Your task to perform on an android device: Empty the shopping cart on bestbuy. Add "panasonic triple a" to the cart on bestbuy Image 0: 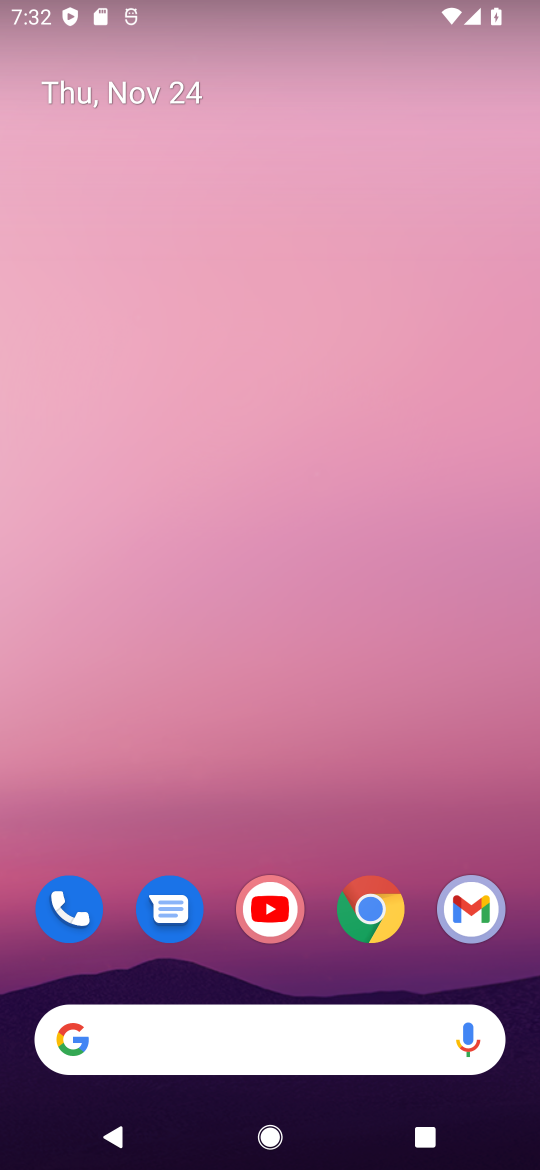
Step 0: click (380, 907)
Your task to perform on an android device: Empty the shopping cart on bestbuy. Add "panasonic triple a" to the cart on bestbuy Image 1: 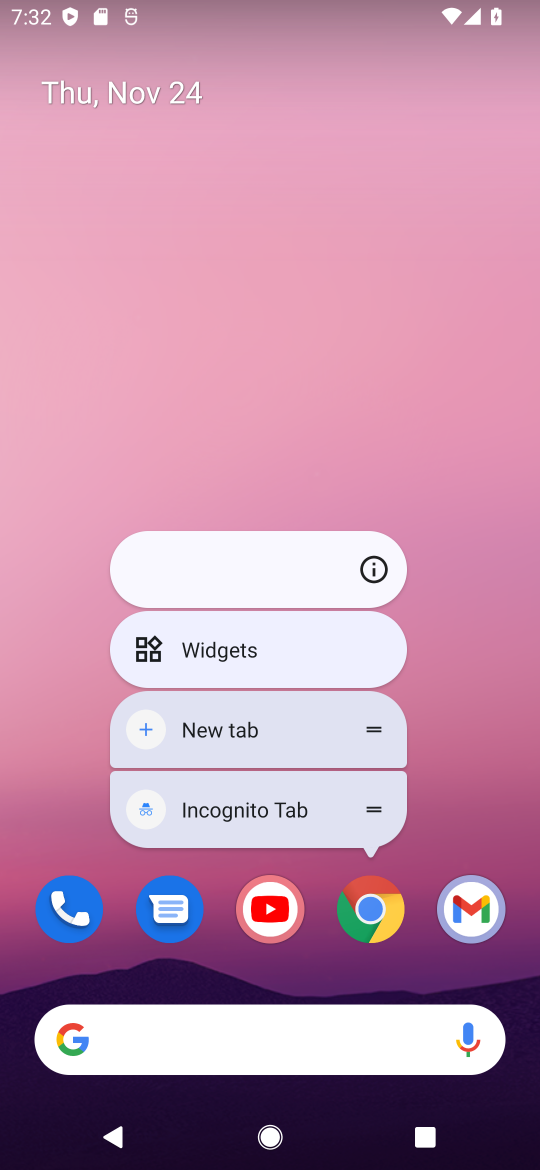
Step 1: click (380, 907)
Your task to perform on an android device: Empty the shopping cart on bestbuy. Add "panasonic triple a" to the cart on bestbuy Image 2: 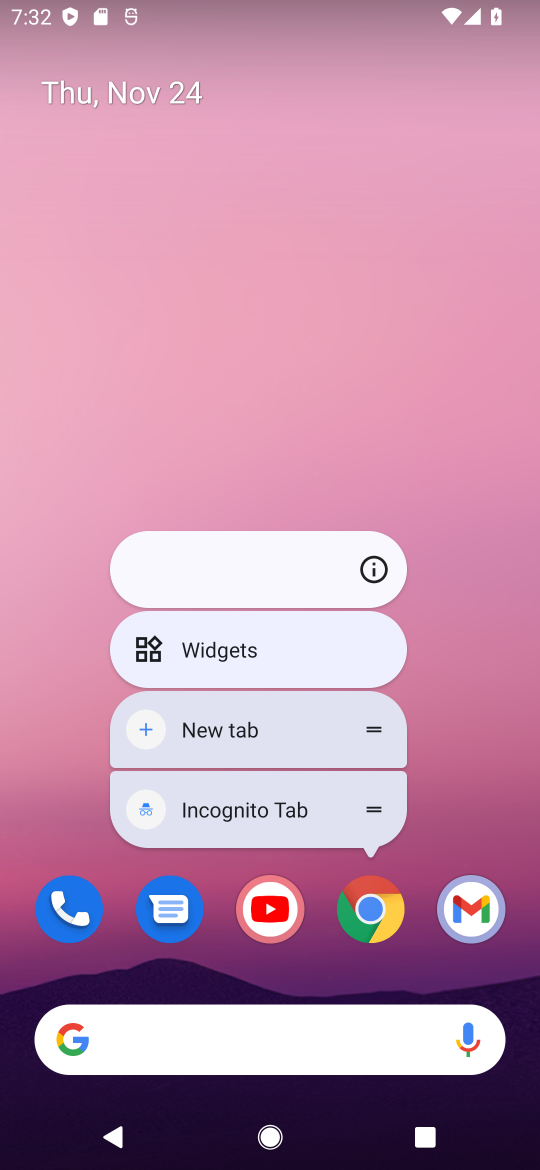
Step 2: click (380, 907)
Your task to perform on an android device: Empty the shopping cart on bestbuy. Add "panasonic triple a" to the cart on bestbuy Image 3: 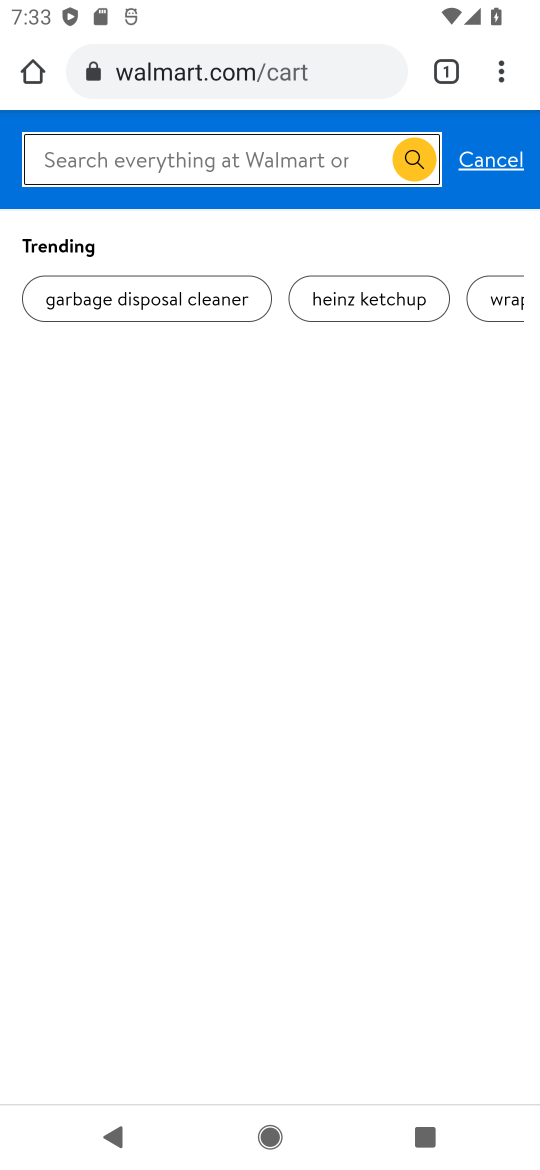
Step 3: click (268, 78)
Your task to perform on an android device: Empty the shopping cart on bestbuy. Add "panasonic triple a" to the cart on bestbuy Image 4: 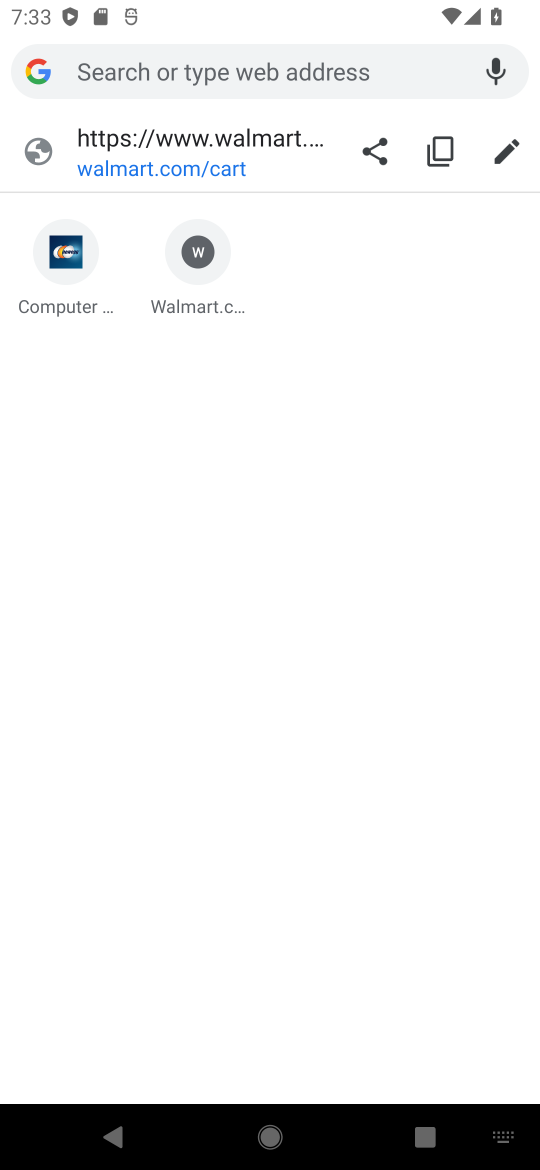
Step 4: type "bestbuy"
Your task to perform on an android device: Empty the shopping cart on bestbuy. Add "panasonic triple a" to the cart on bestbuy Image 5: 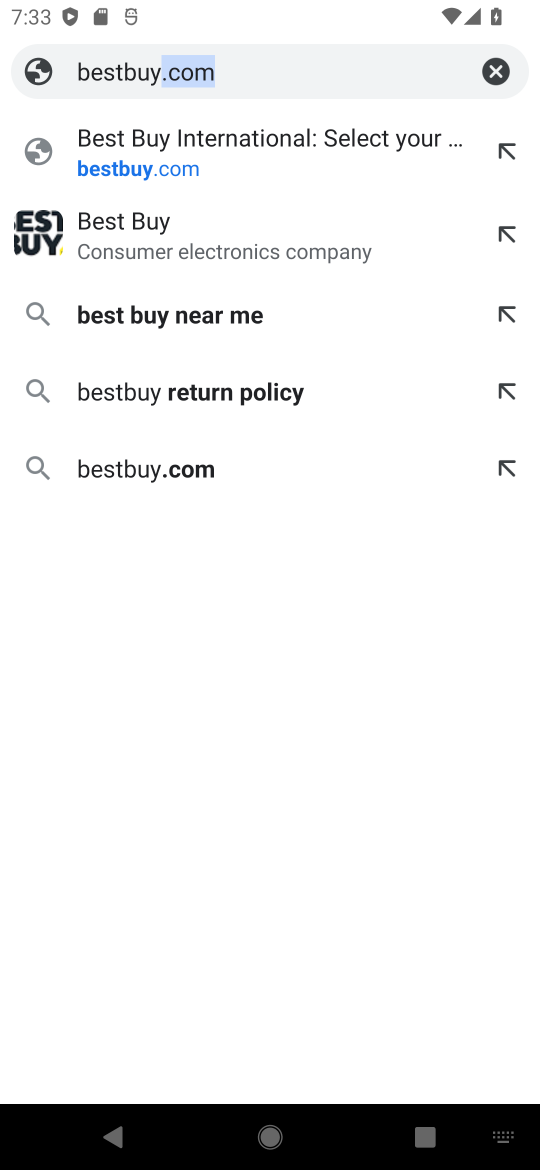
Step 5: click (279, 164)
Your task to perform on an android device: Empty the shopping cart on bestbuy. Add "panasonic triple a" to the cart on bestbuy Image 6: 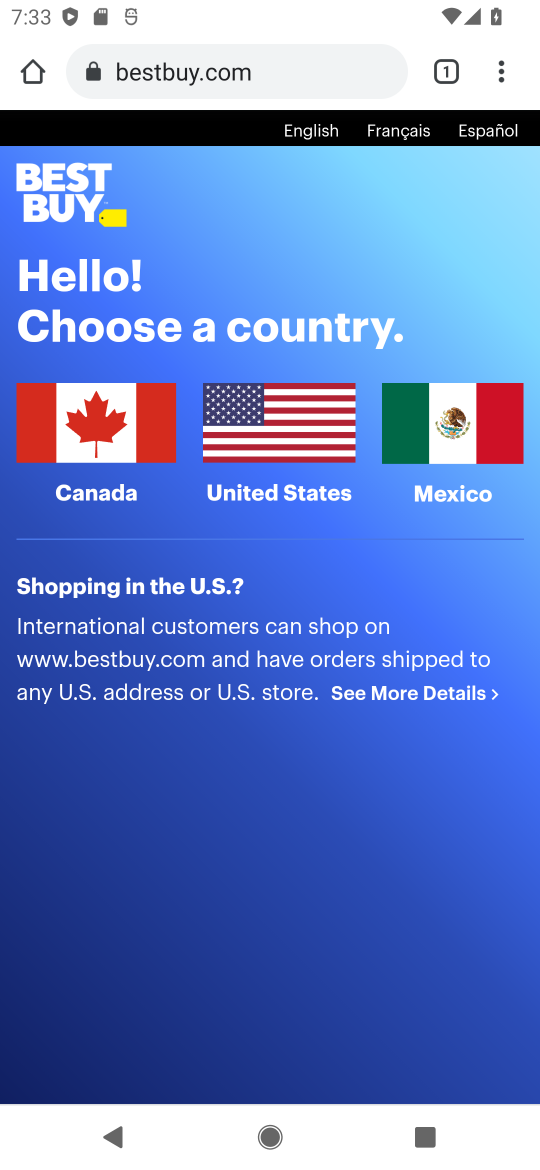
Step 6: click (295, 408)
Your task to perform on an android device: Empty the shopping cart on bestbuy. Add "panasonic triple a" to the cart on bestbuy Image 7: 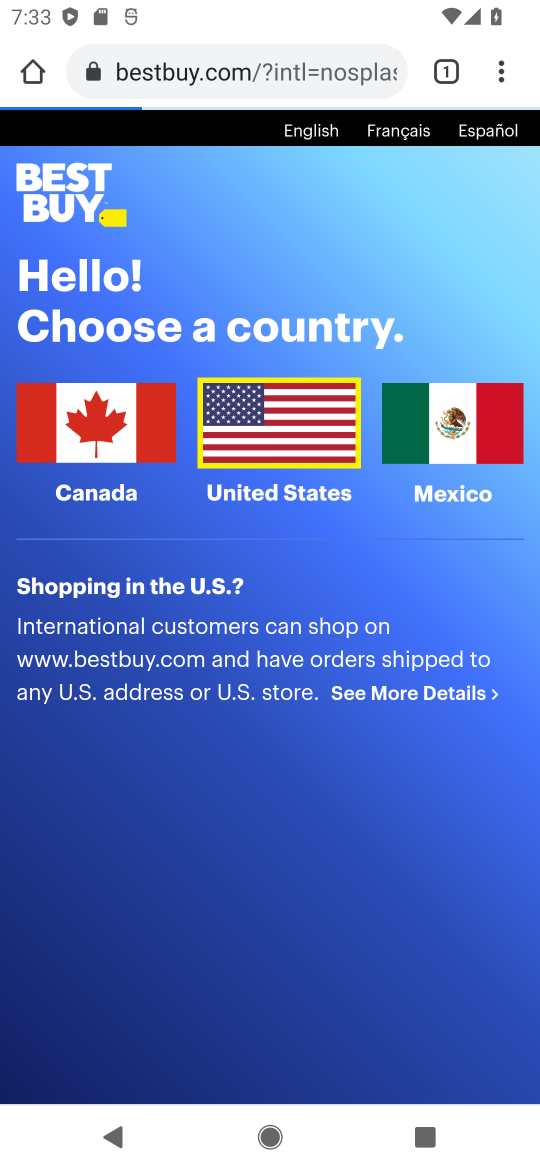
Step 7: click (275, 489)
Your task to perform on an android device: Empty the shopping cart on bestbuy. Add "panasonic triple a" to the cart on bestbuy Image 8: 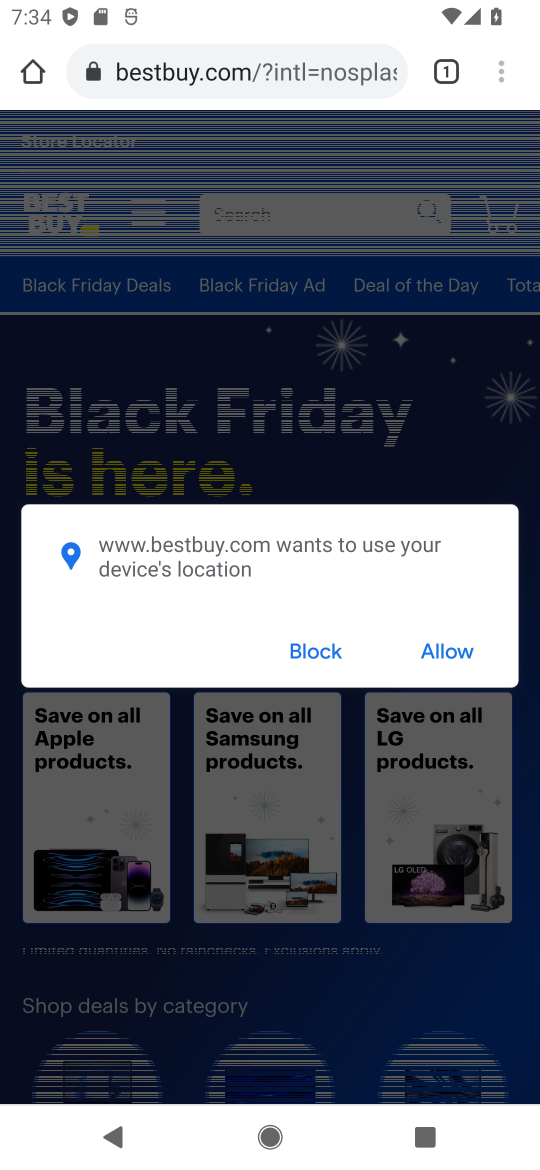
Step 8: click (434, 670)
Your task to perform on an android device: Empty the shopping cart on bestbuy. Add "panasonic triple a" to the cart on bestbuy Image 9: 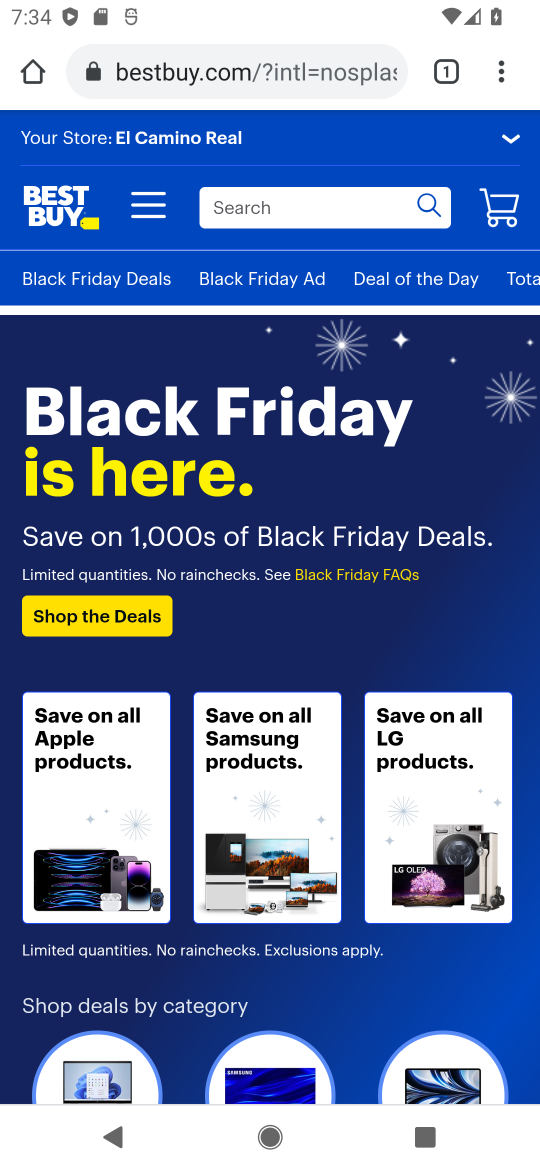
Step 9: click (326, 211)
Your task to perform on an android device: Empty the shopping cart on bestbuy. Add "panasonic triple a" to the cart on bestbuy Image 10: 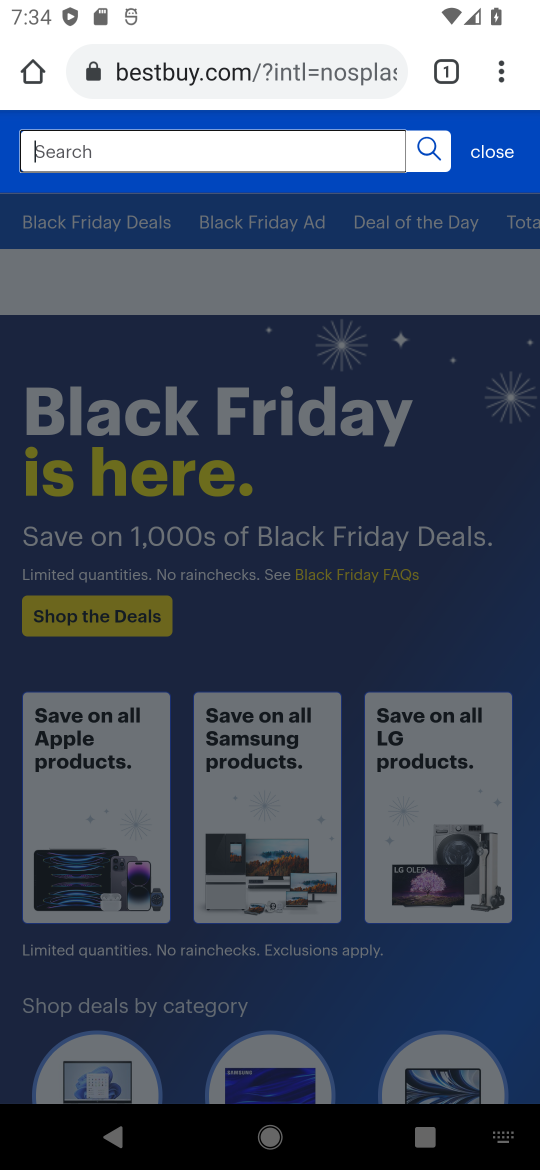
Step 10: type "panasonic aaa"
Your task to perform on an android device: Empty the shopping cart on bestbuy. Add "panasonic triple a" to the cart on bestbuy Image 11: 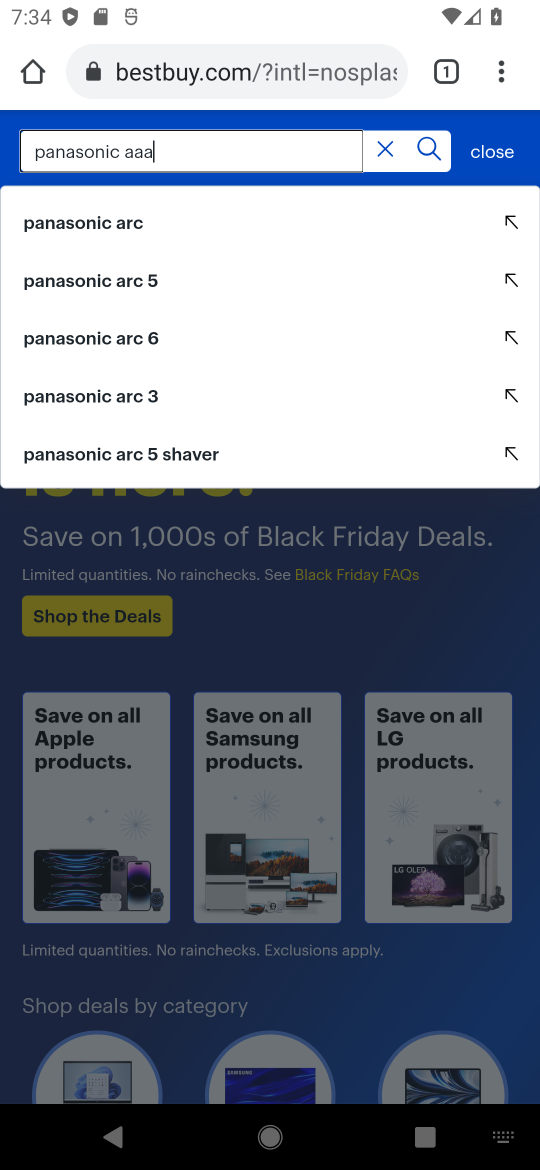
Step 11: press enter
Your task to perform on an android device: Empty the shopping cart on bestbuy. Add "panasonic triple a" to the cart on bestbuy Image 12: 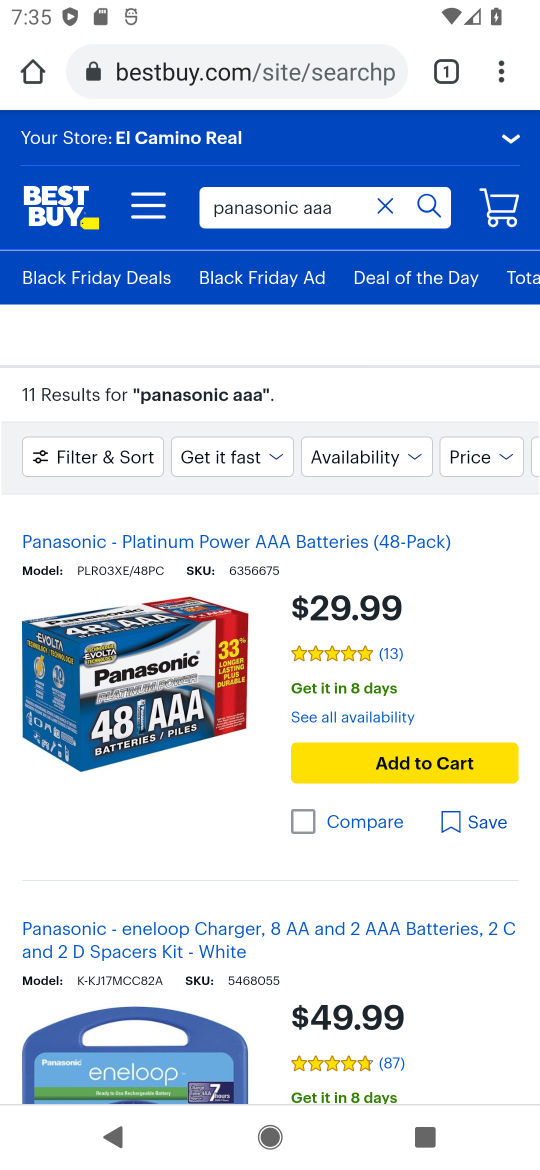
Step 12: click (379, 766)
Your task to perform on an android device: Empty the shopping cart on bestbuy. Add "panasonic triple a" to the cart on bestbuy Image 13: 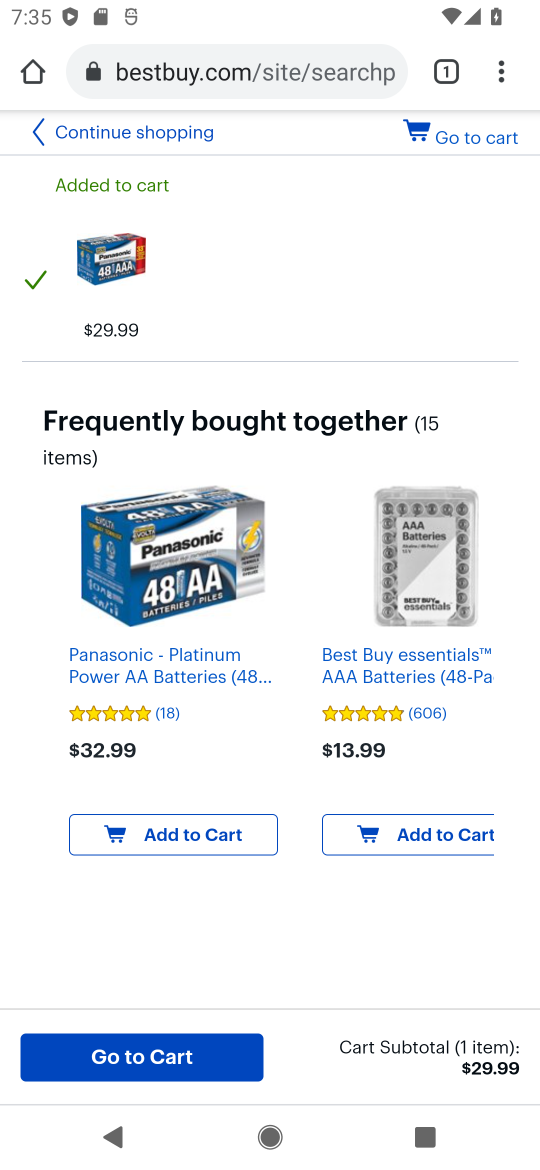
Step 13: task complete